Your task to perform on an android device: turn vacation reply on in the gmail app Image 0: 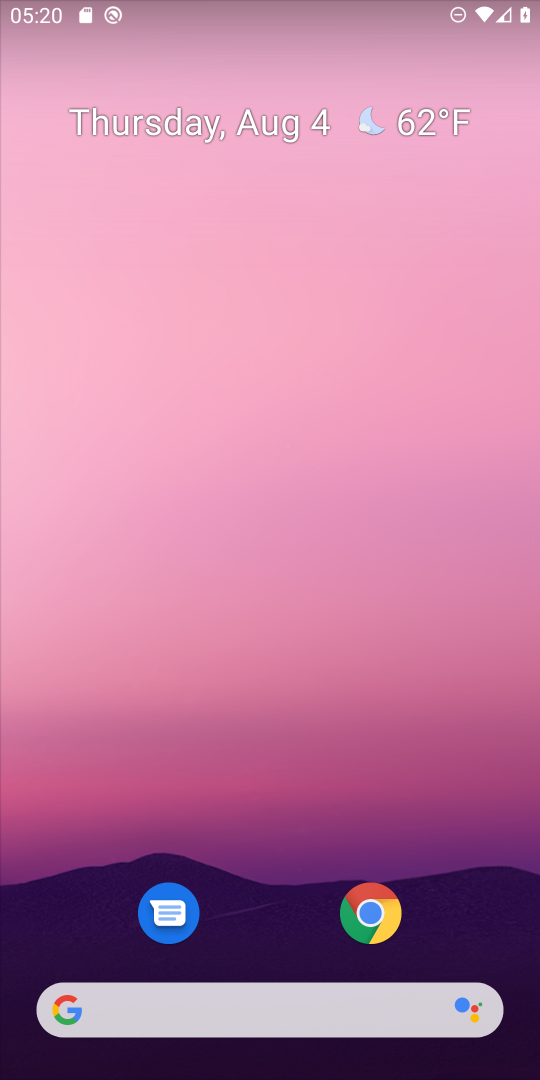
Step 0: drag from (415, 828) to (470, 20)
Your task to perform on an android device: turn vacation reply on in the gmail app Image 1: 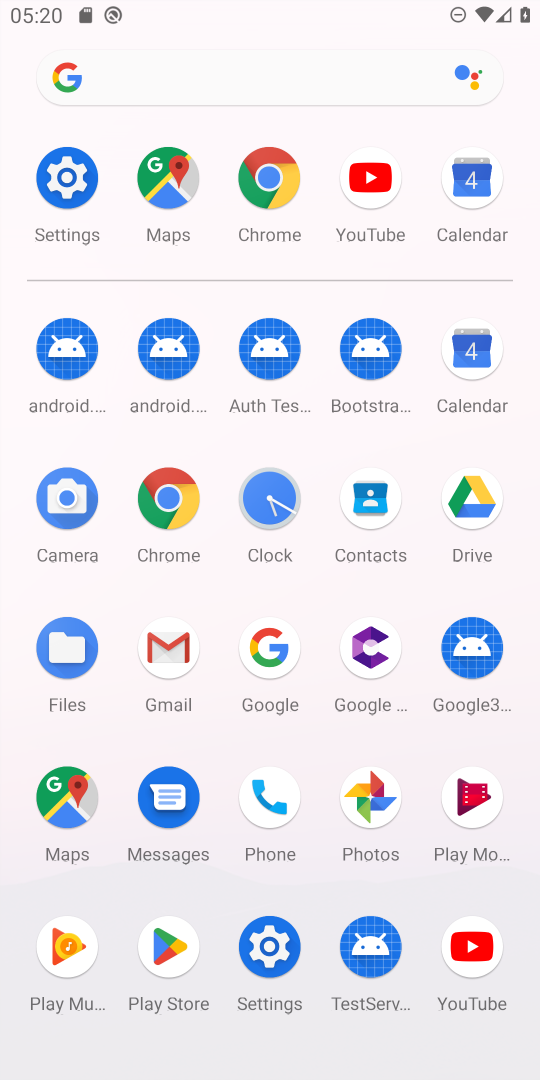
Step 1: click (164, 653)
Your task to perform on an android device: turn vacation reply on in the gmail app Image 2: 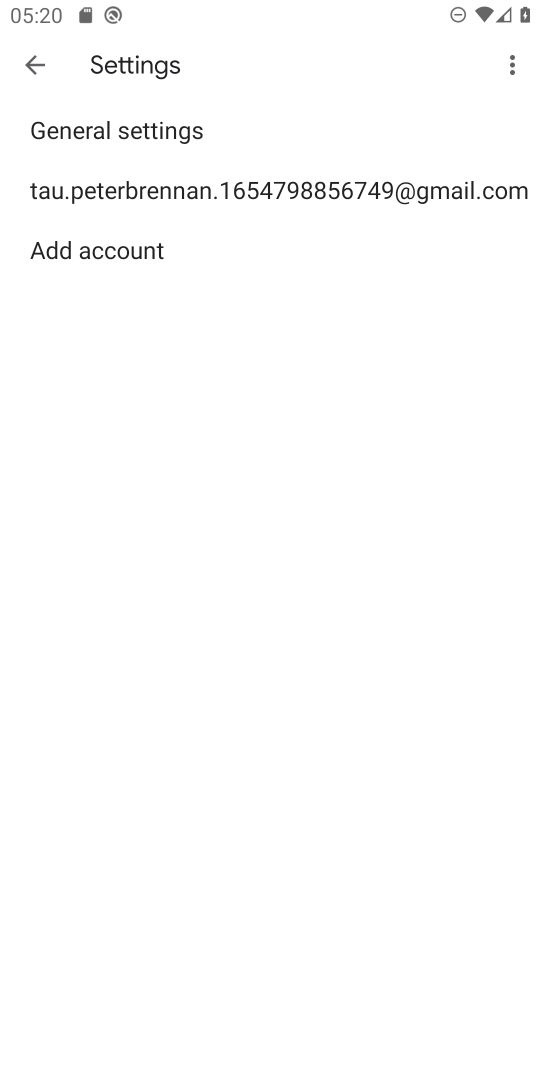
Step 2: click (437, 161)
Your task to perform on an android device: turn vacation reply on in the gmail app Image 3: 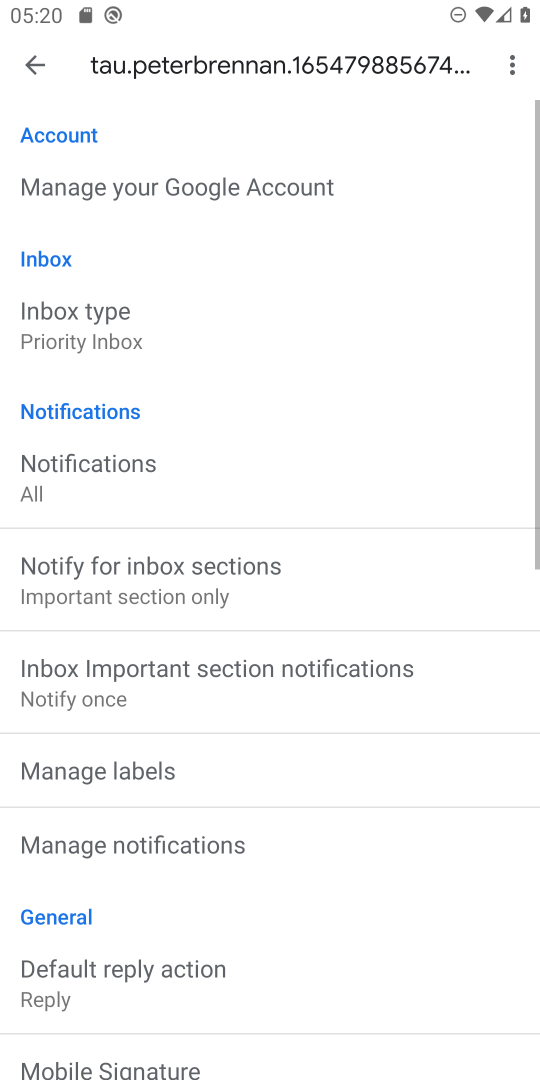
Step 3: drag from (190, 959) to (313, 187)
Your task to perform on an android device: turn vacation reply on in the gmail app Image 4: 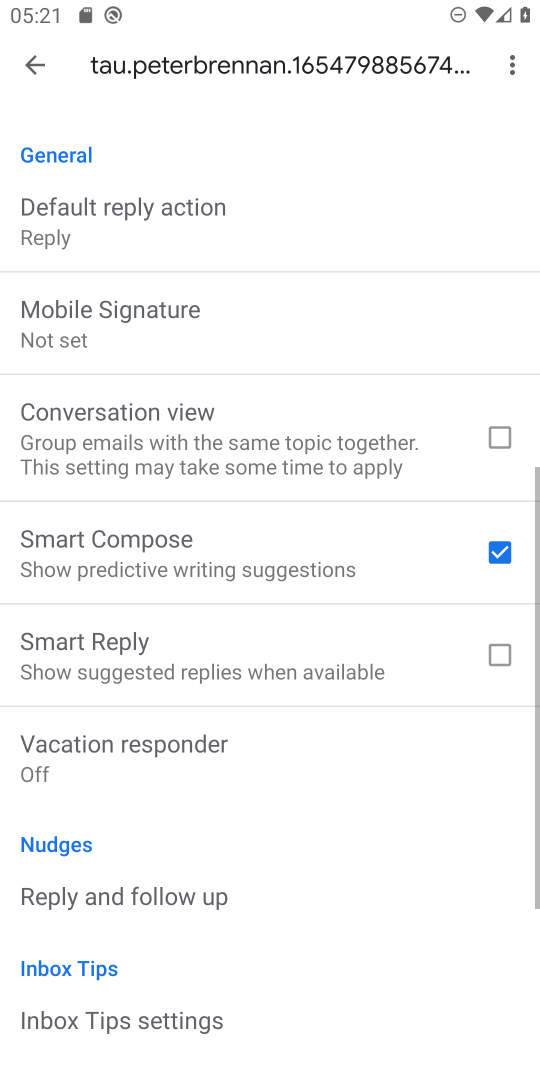
Step 4: click (151, 753)
Your task to perform on an android device: turn vacation reply on in the gmail app Image 5: 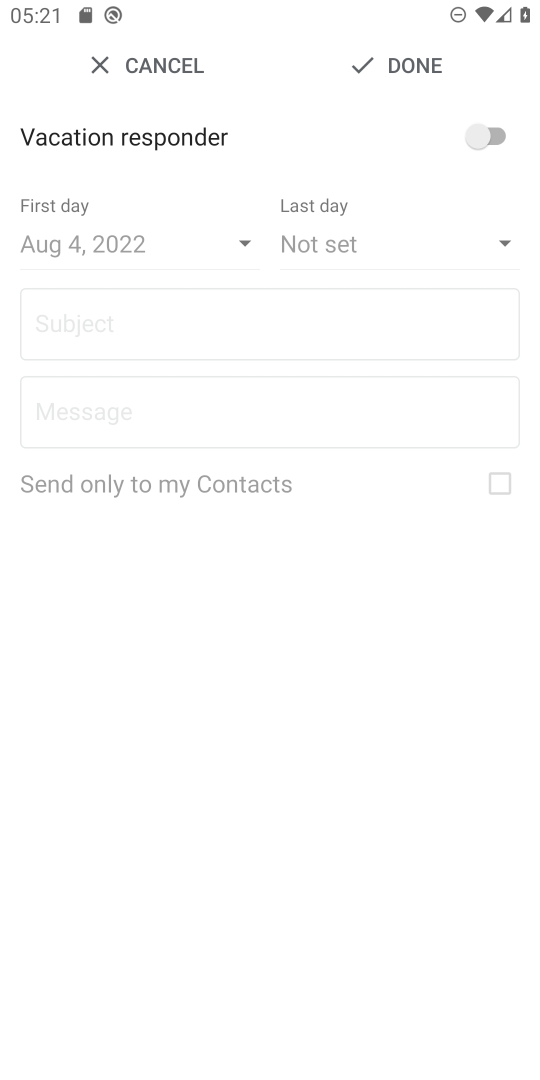
Step 5: click (403, 56)
Your task to perform on an android device: turn vacation reply on in the gmail app Image 6: 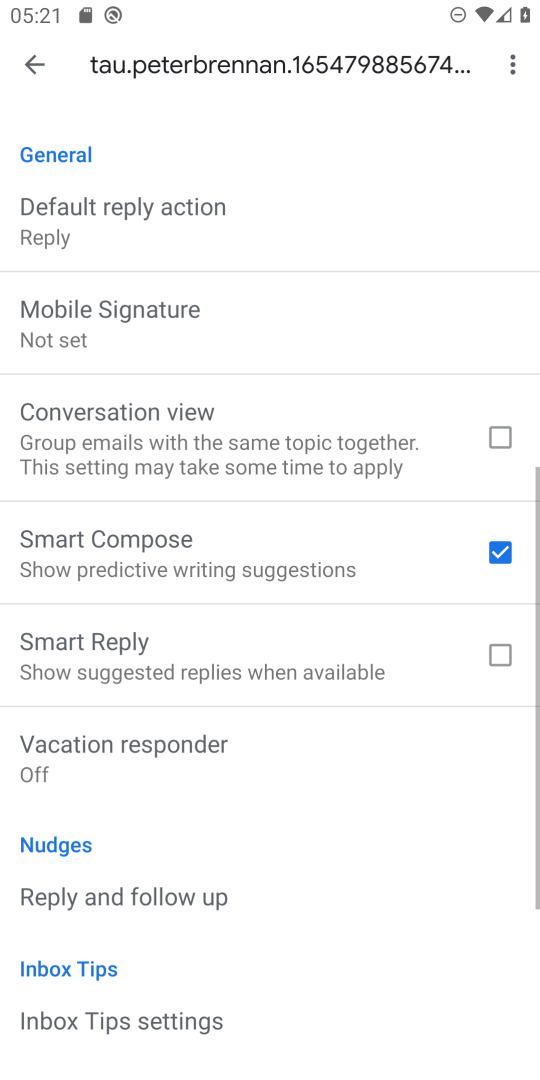
Step 6: task complete